Your task to perform on an android device: choose inbox layout in the gmail app Image 0: 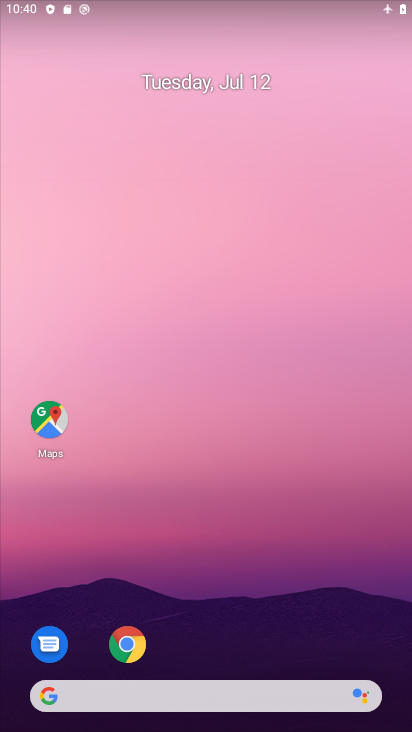
Step 0: drag from (198, 679) to (207, 251)
Your task to perform on an android device: choose inbox layout in the gmail app Image 1: 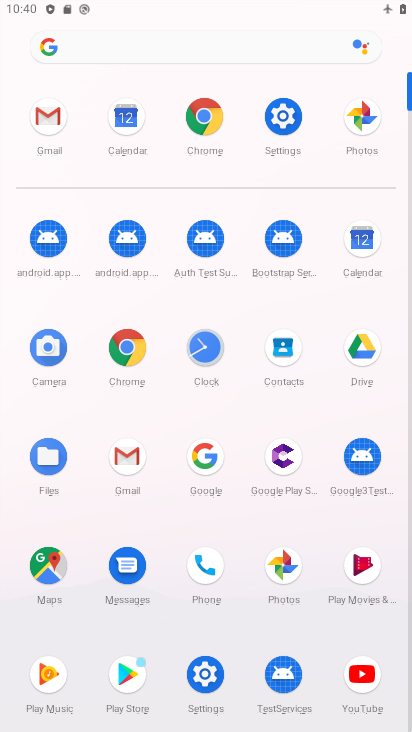
Step 1: click (128, 457)
Your task to perform on an android device: choose inbox layout in the gmail app Image 2: 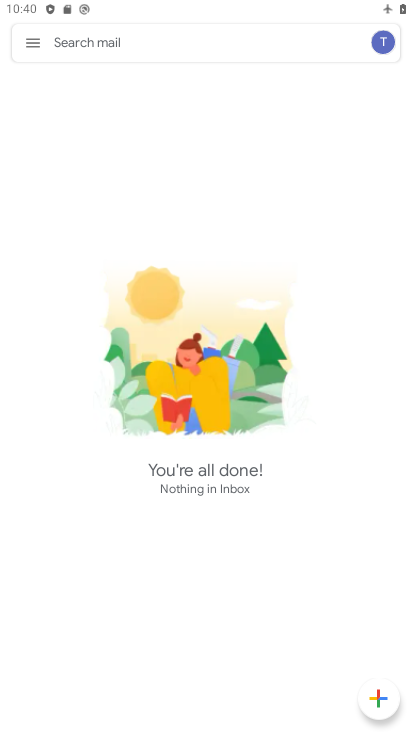
Step 2: click (37, 42)
Your task to perform on an android device: choose inbox layout in the gmail app Image 3: 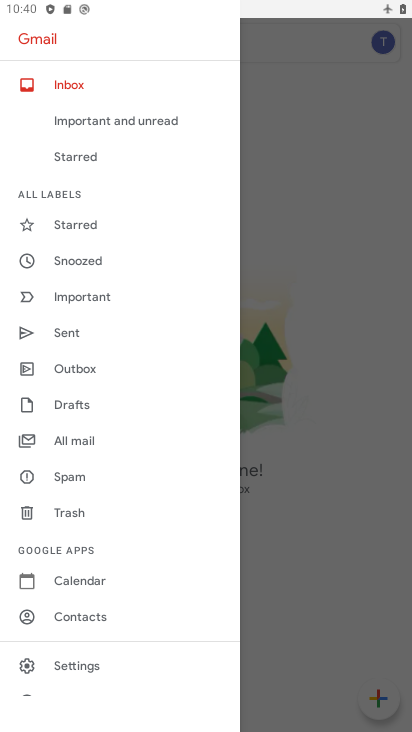
Step 3: click (88, 664)
Your task to perform on an android device: choose inbox layout in the gmail app Image 4: 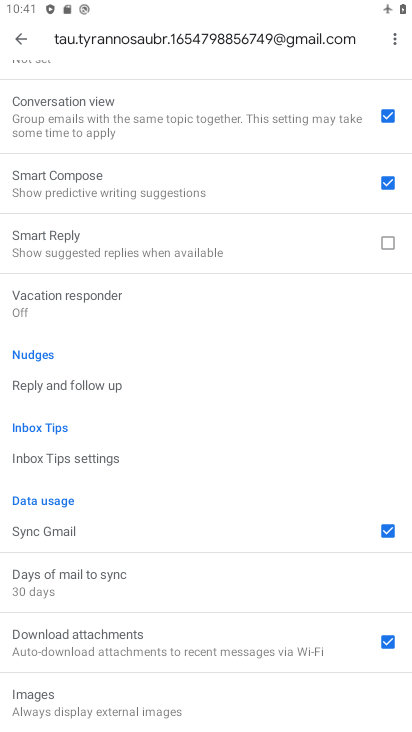
Step 4: drag from (74, 115) to (65, 598)
Your task to perform on an android device: choose inbox layout in the gmail app Image 5: 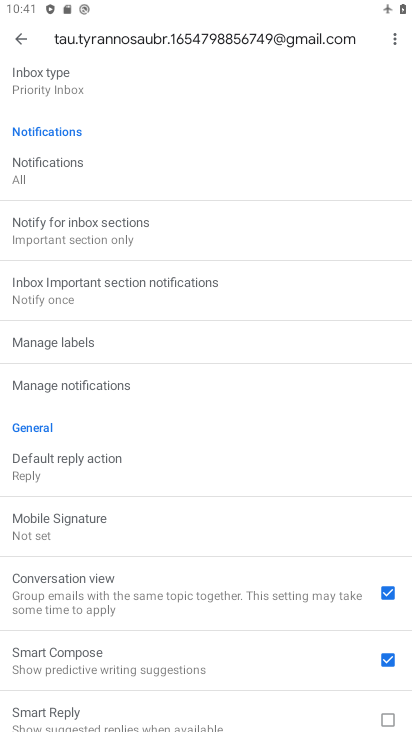
Step 5: click (40, 81)
Your task to perform on an android device: choose inbox layout in the gmail app Image 6: 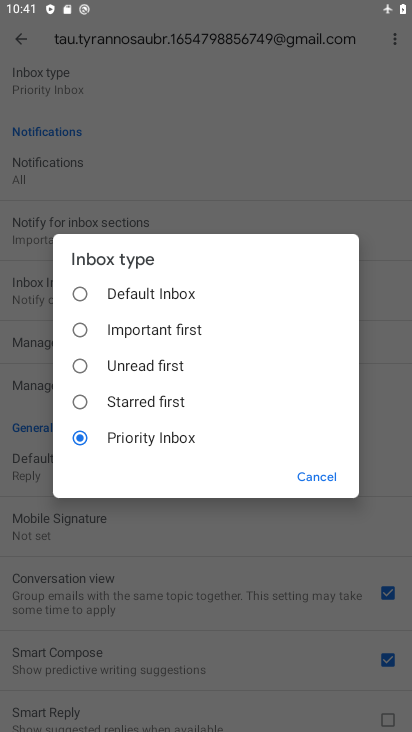
Step 6: click (134, 328)
Your task to perform on an android device: choose inbox layout in the gmail app Image 7: 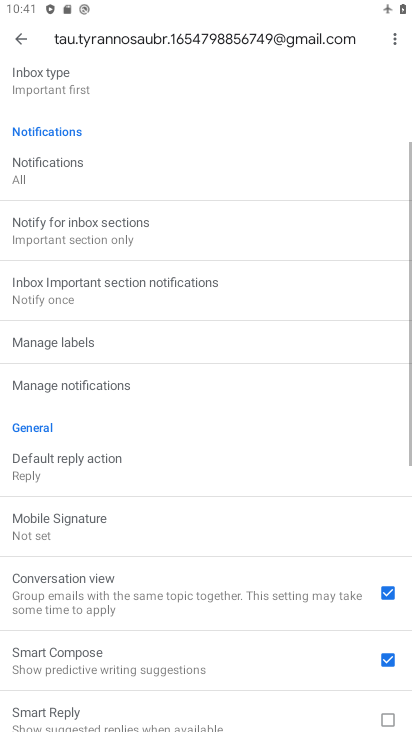
Step 7: task complete